Your task to perform on an android device: Open Google Image 0: 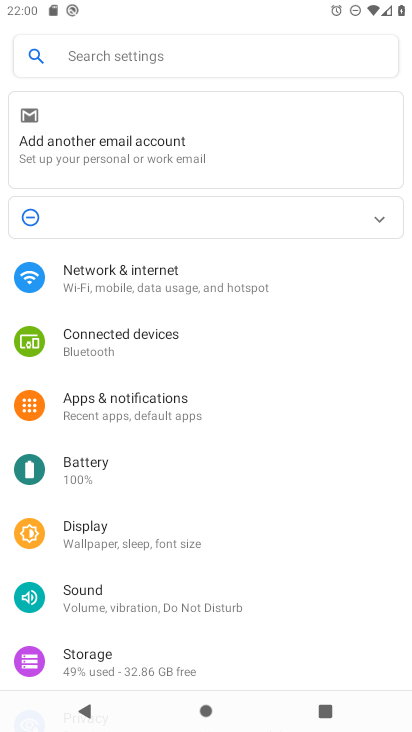
Step 0: press home button
Your task to perform on an android device: Open Google Image 1: 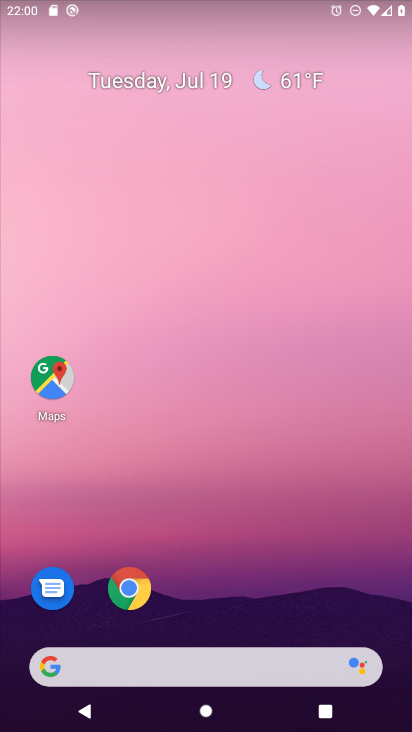
Step 1: drag from (222, 632) to (267, 105)
Your task to perform on an android device: Open Google Image 2: 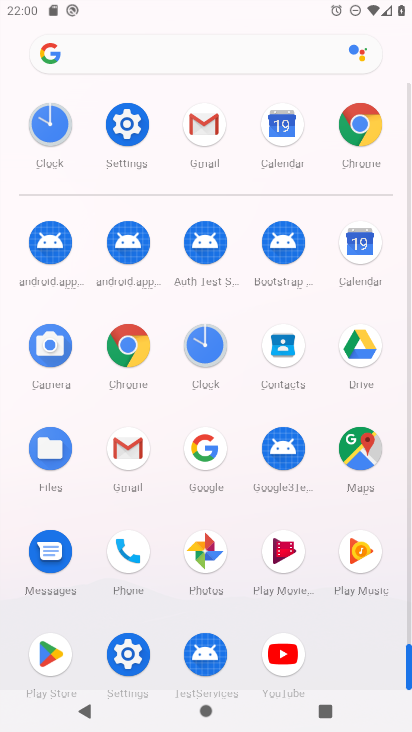
Step 2: click (200, 438)
Your task to perform on an android device: Open Google Image 3: 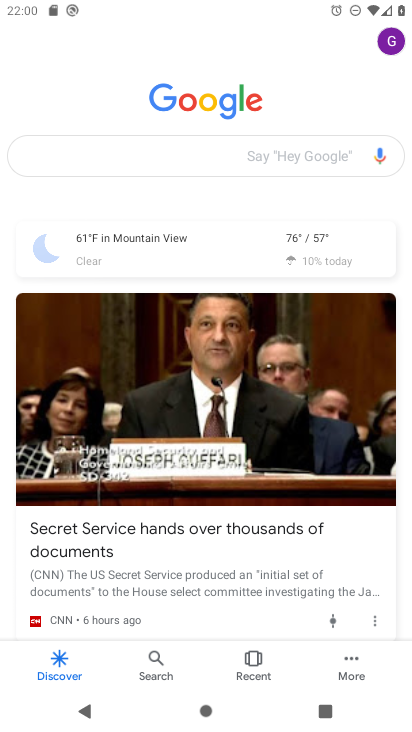
Step 3: task complete